Your task to perform on an android device: toggle javascript in the chrome app Image 0: 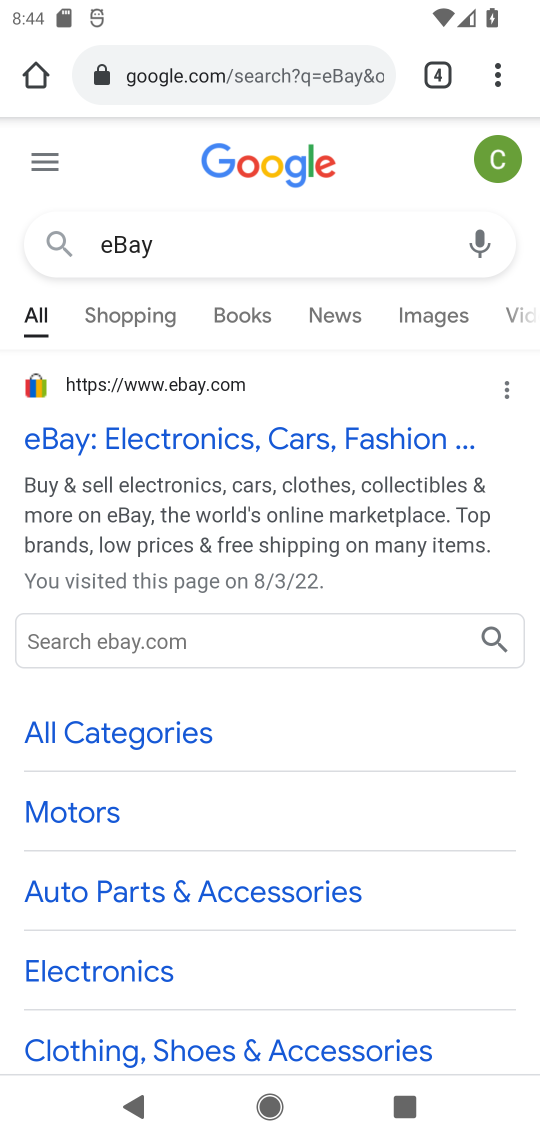
Step 0: click (512, 72)
Your task to perform on an android device: toggle javascript in the chrome app Image 1: 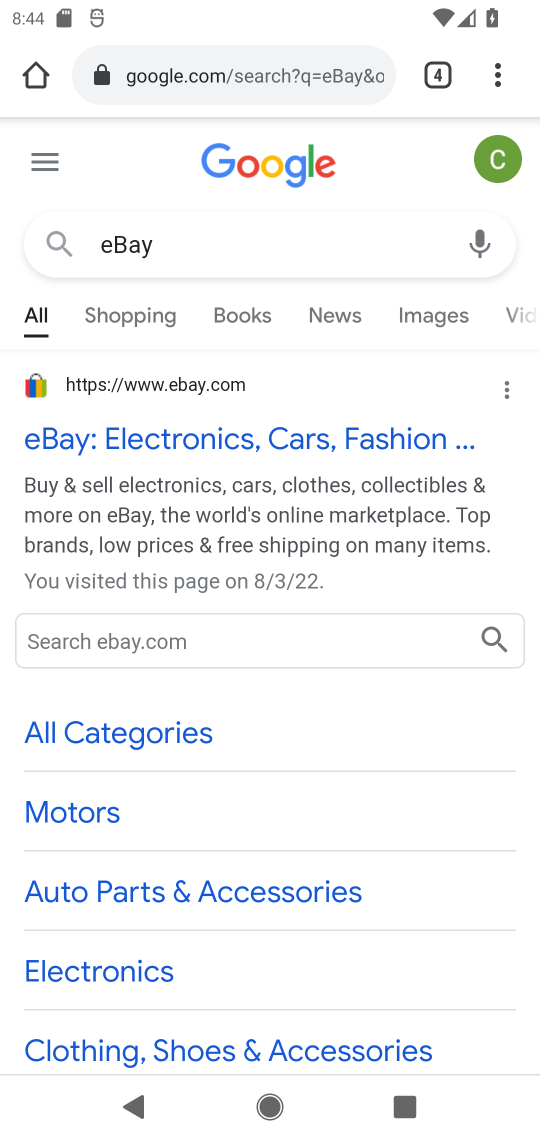
Step 1: click (512, 72)
Your task to perform on an android device: toggle javascript in the chrome app Image 2: 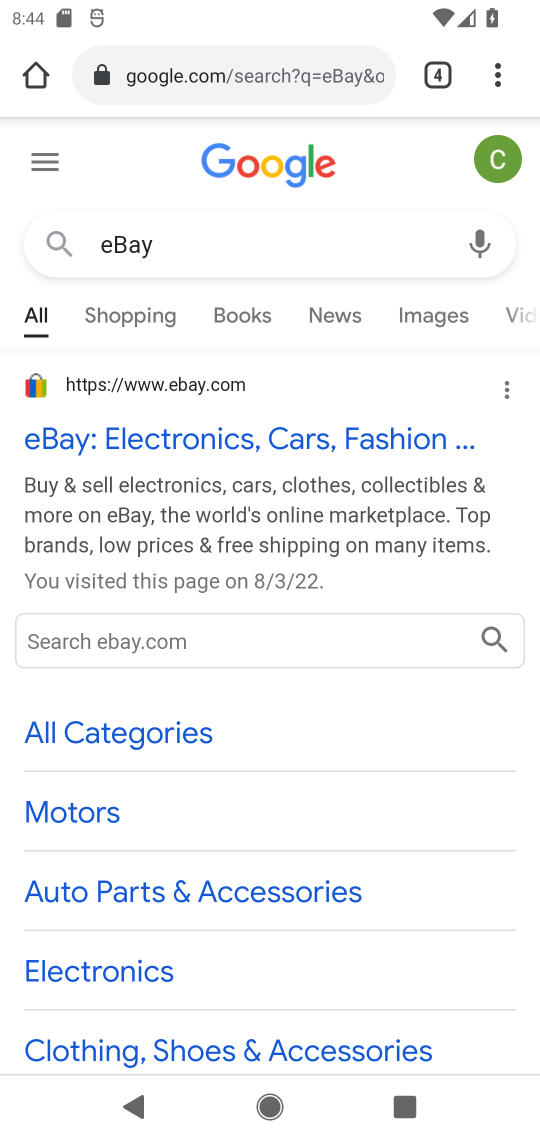
Step 2: click (490, 68)
Your task to perform on an android device: toggle javascript in the chrome app Image 3: 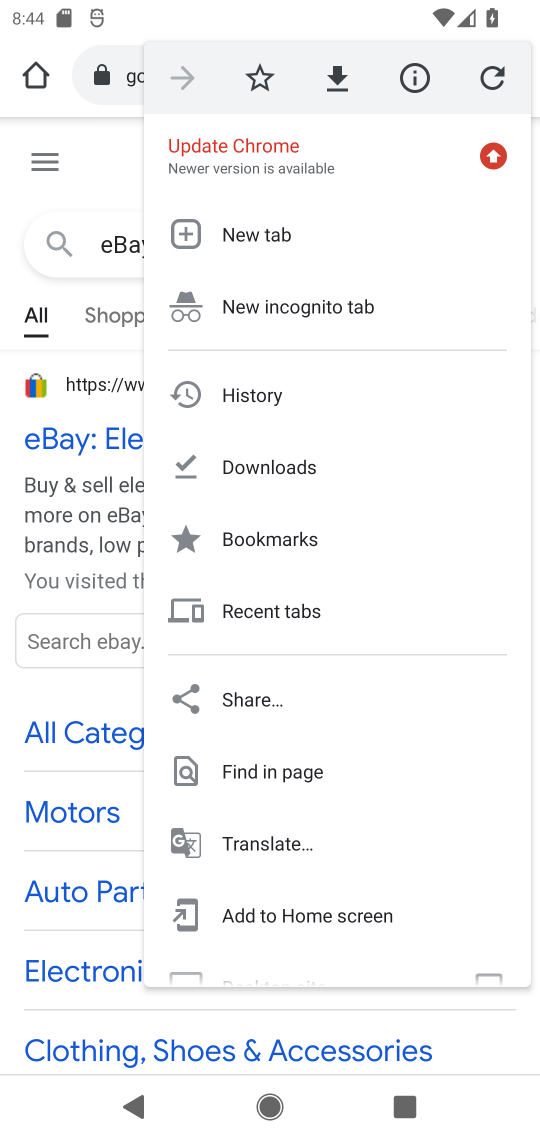
Step 3: drag from (252, 937) to (330, 236)
Your task to perform on an android device: toggle javascript in the chrome app Image 4: 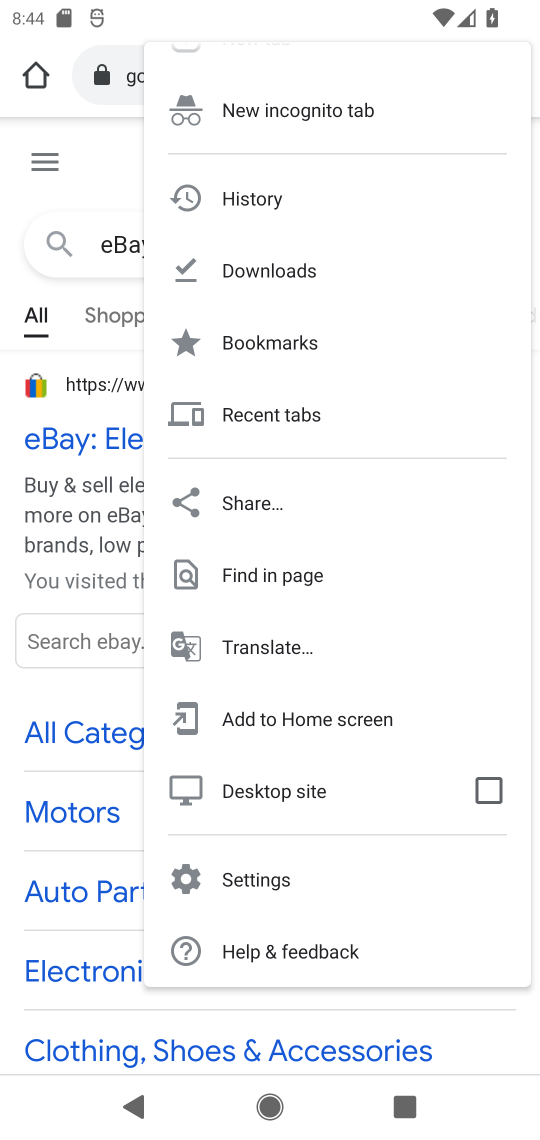
Step 4: click (257, 881)
Your task to perform on an android device: toggle javascript in the chrome app Image 5: 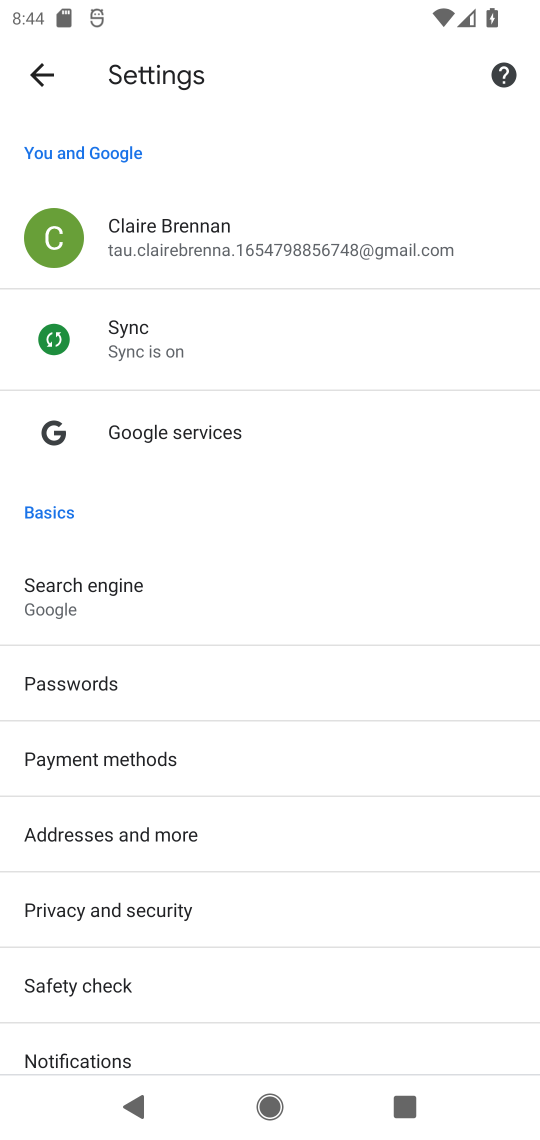
Step 5: drag from (259, 1004) to (285, 396)
Your task to perform on an android device: toggle javascript in the chrome app Image 6: 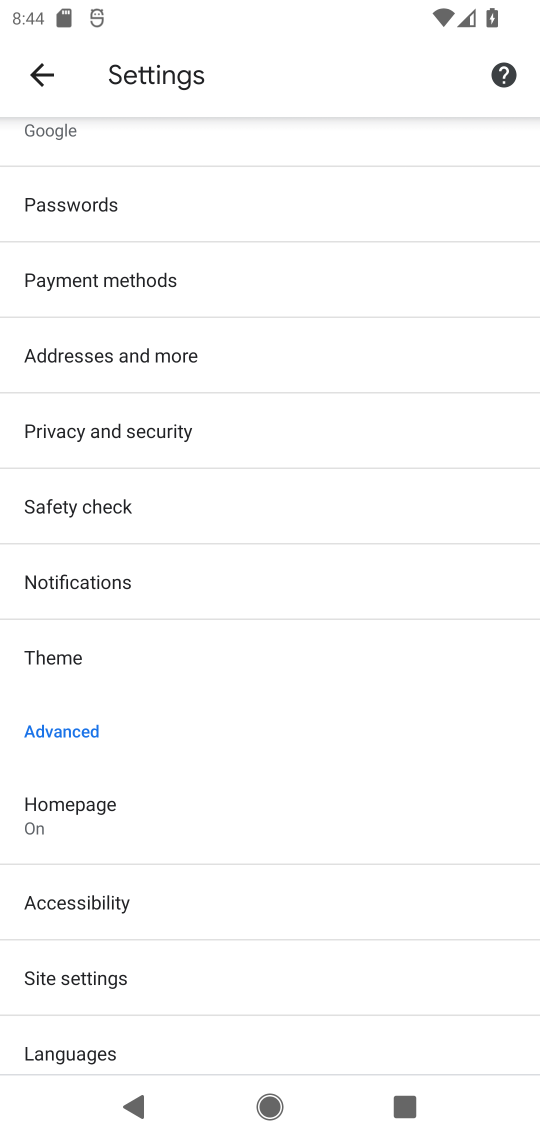
Step 6: drag from (138, 1002) to (203, 543)
Your task to perform on an android device: toggle javascript in the chrome app Image 7: 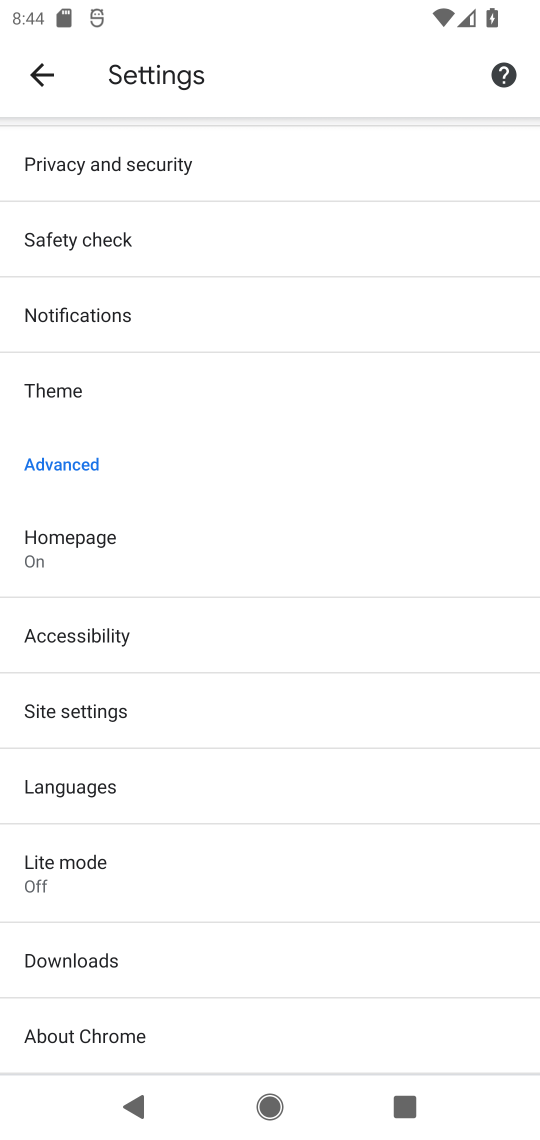
Step 7: click (198, 691)
Your task to perform on an android device: toggle javascript in the chrome app Image 8: 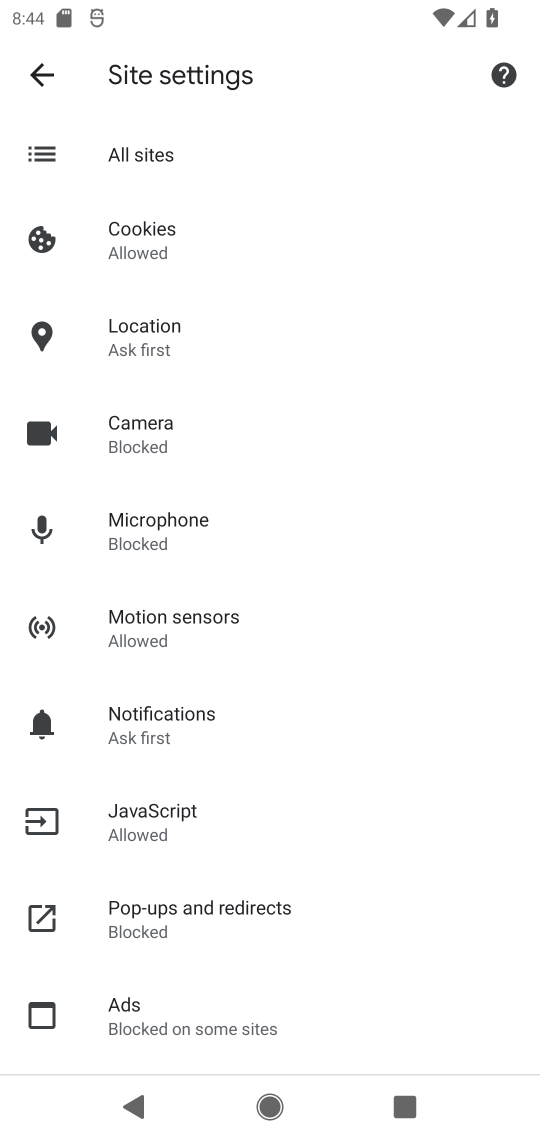
Step 8: click (196, 809)
Your task to perform on an android device: toggle javascript in the chrome app Image 9: 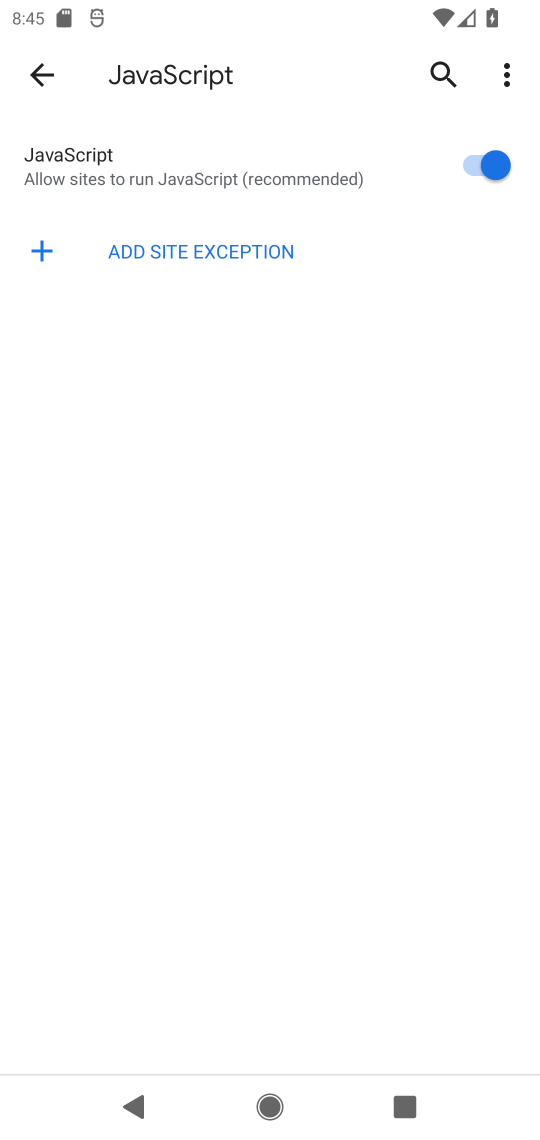
Step 9: click (472, 159)
Your task to perform on an android device: toggle javascript in the chrome app Image 10: 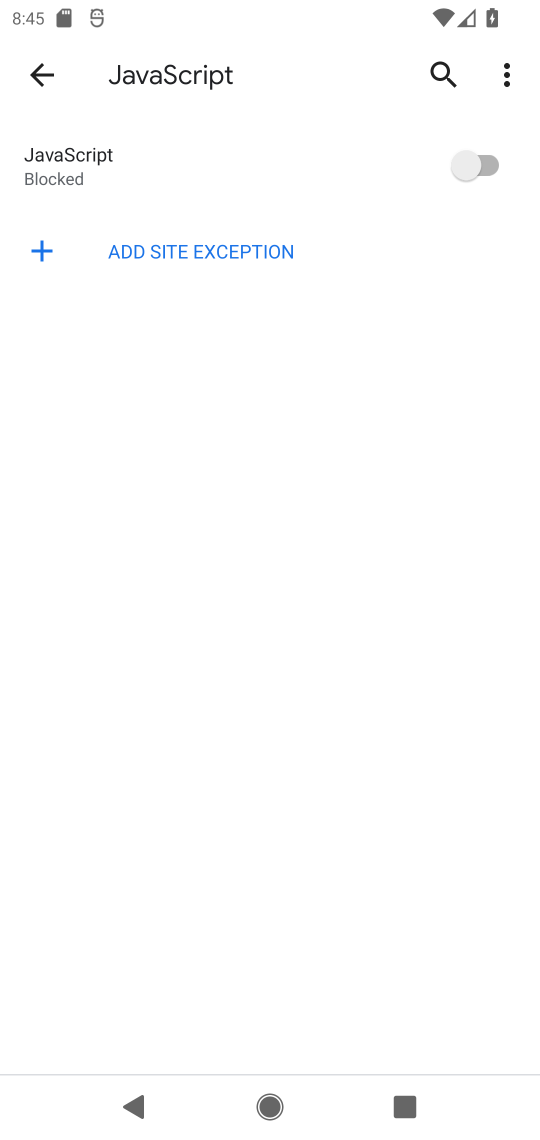
Step 10: click (472, 159)
Your task to perform on an android device: toggle javascript in the chrome app Image 11: 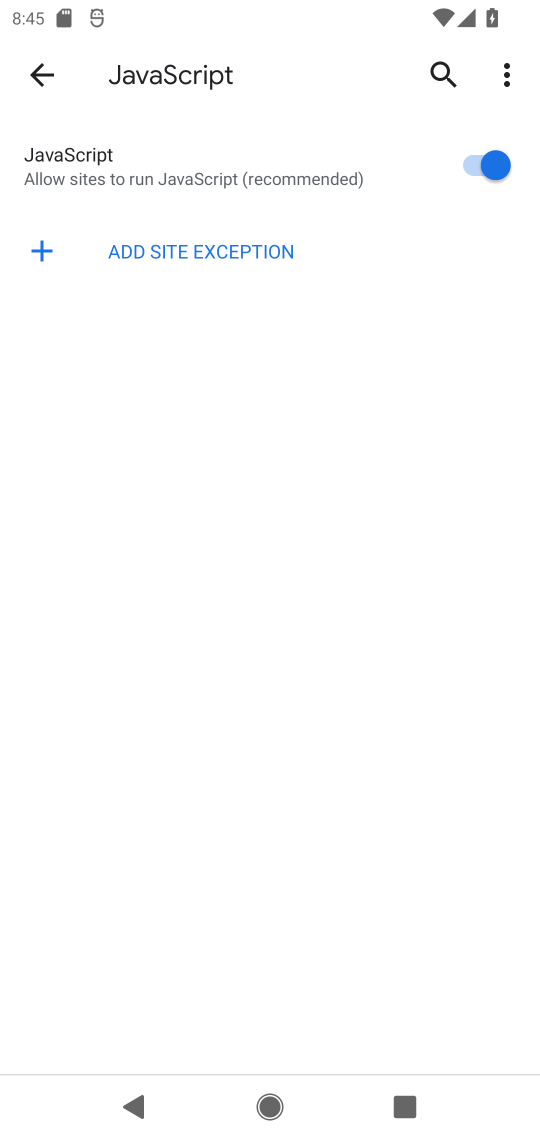
Step 11: task complete